Your task to perform on an android device: Go to battery settings Image 0: 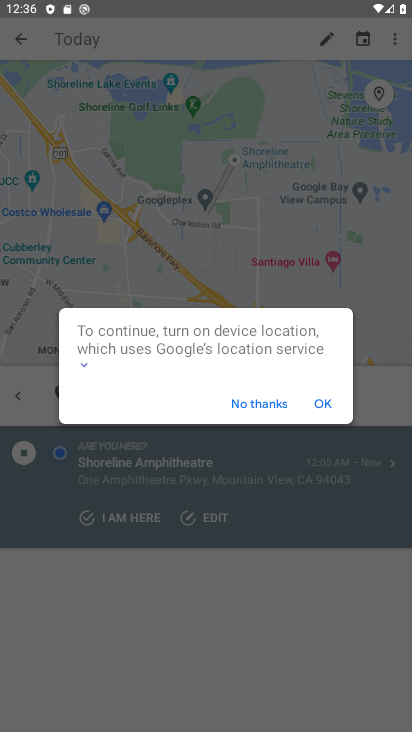
Step 0: press home button
Your task to perform on an android device: Go to battery settings Image 1: 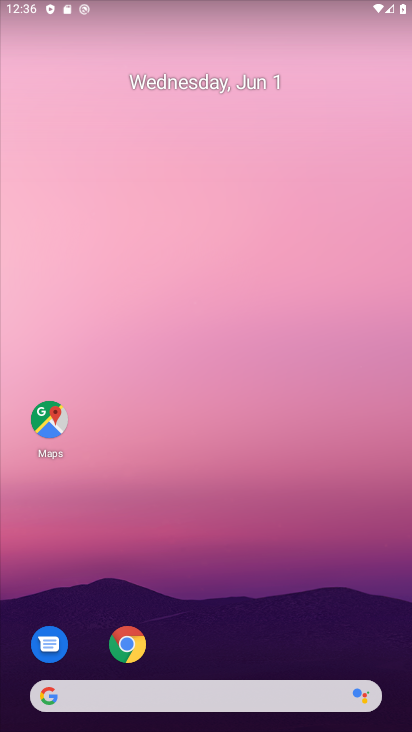
Step 1: drag from (237, 592) to (325, 60)
Your task to perform on an android device: Go to battery settings Image 2: 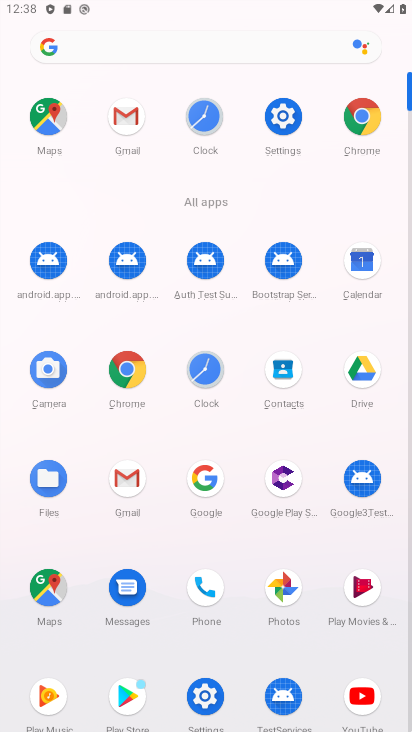
Step 2: click (288, 133)
Your task to perform on an android device: Go to battery settings Image 3: 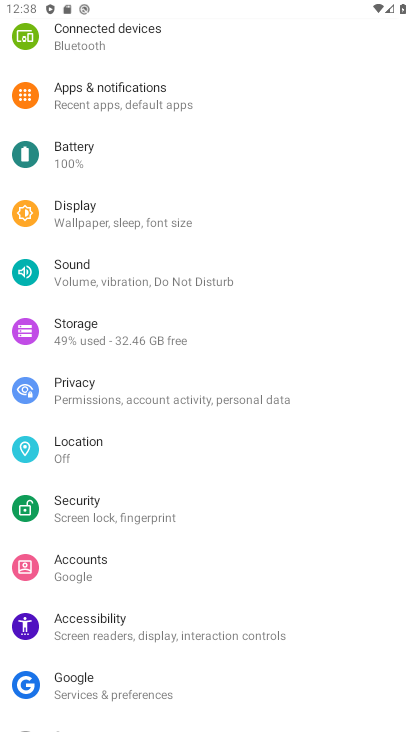
Step 3: click (104, 157)
Your task to perform on an android device: Go to battery settings Image 4: 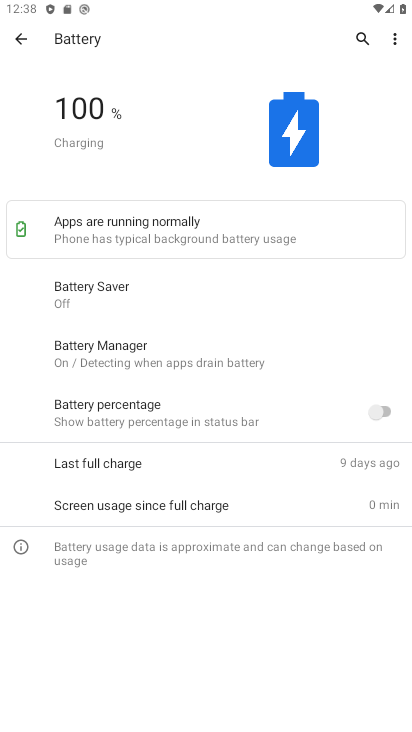
Step 4: task complete